Your task to perform on an android device: Go to Reddit.com Image 0: 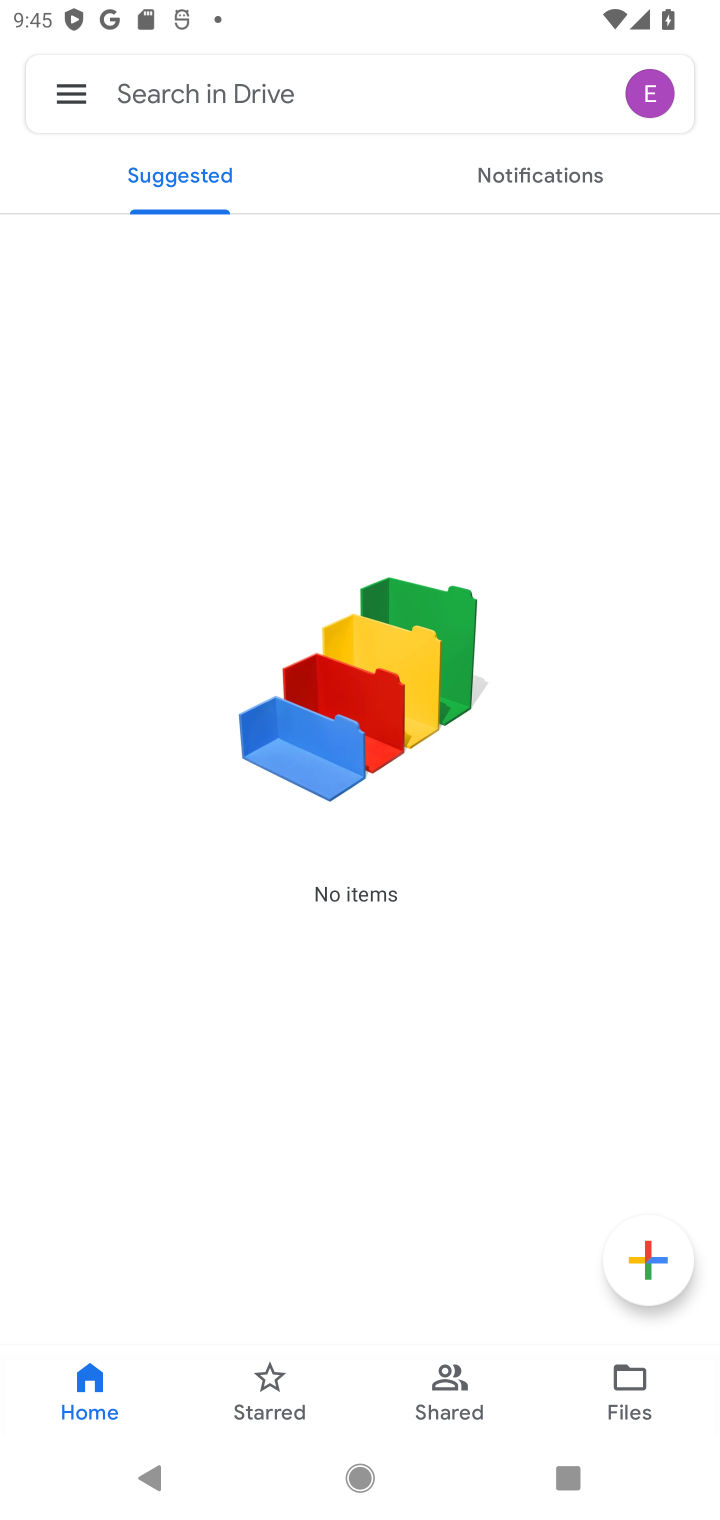
Step 0: press home button
Your task to perform on an android device: Go to Reddit.com Image 1: 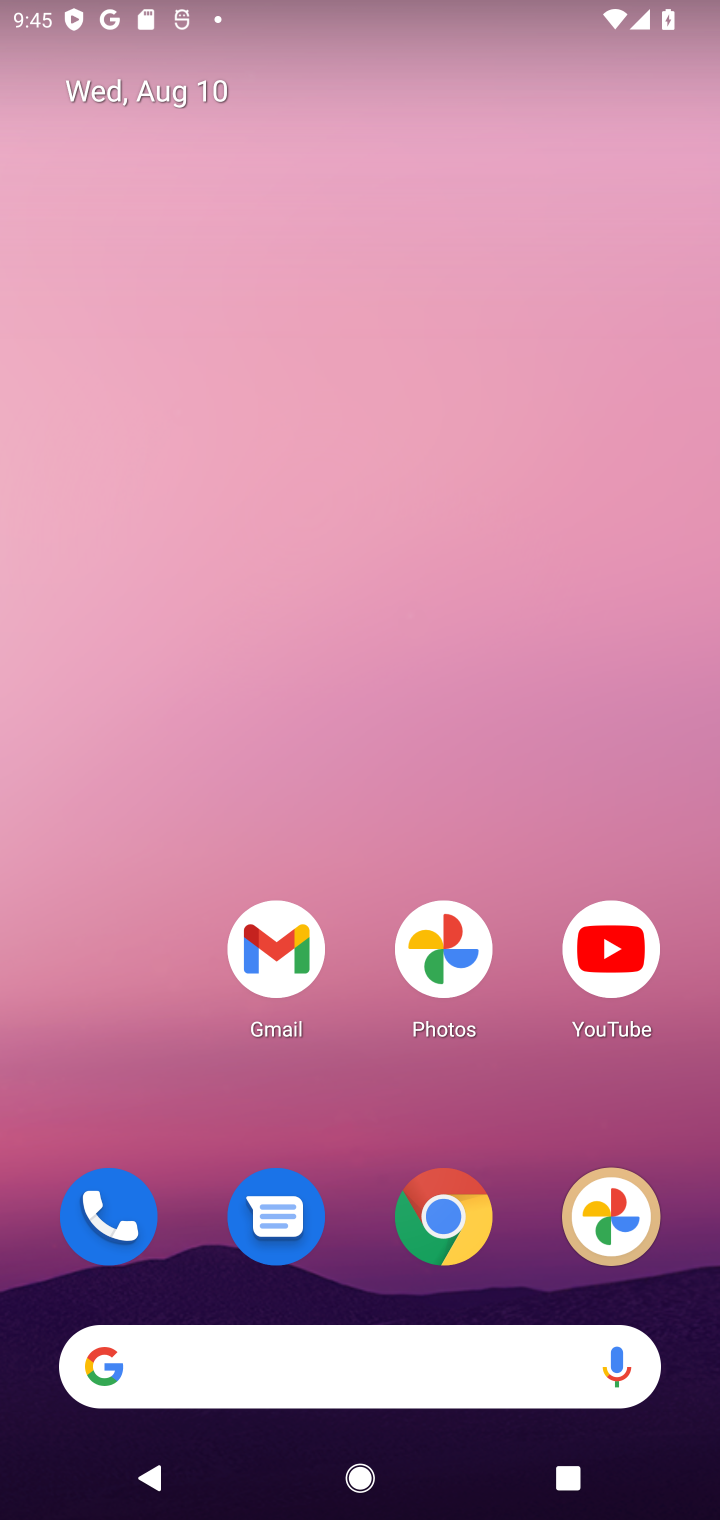
Step 1: click (286, 1375)
Your task to perform on an android device: Go to Reddit.com Image 2: 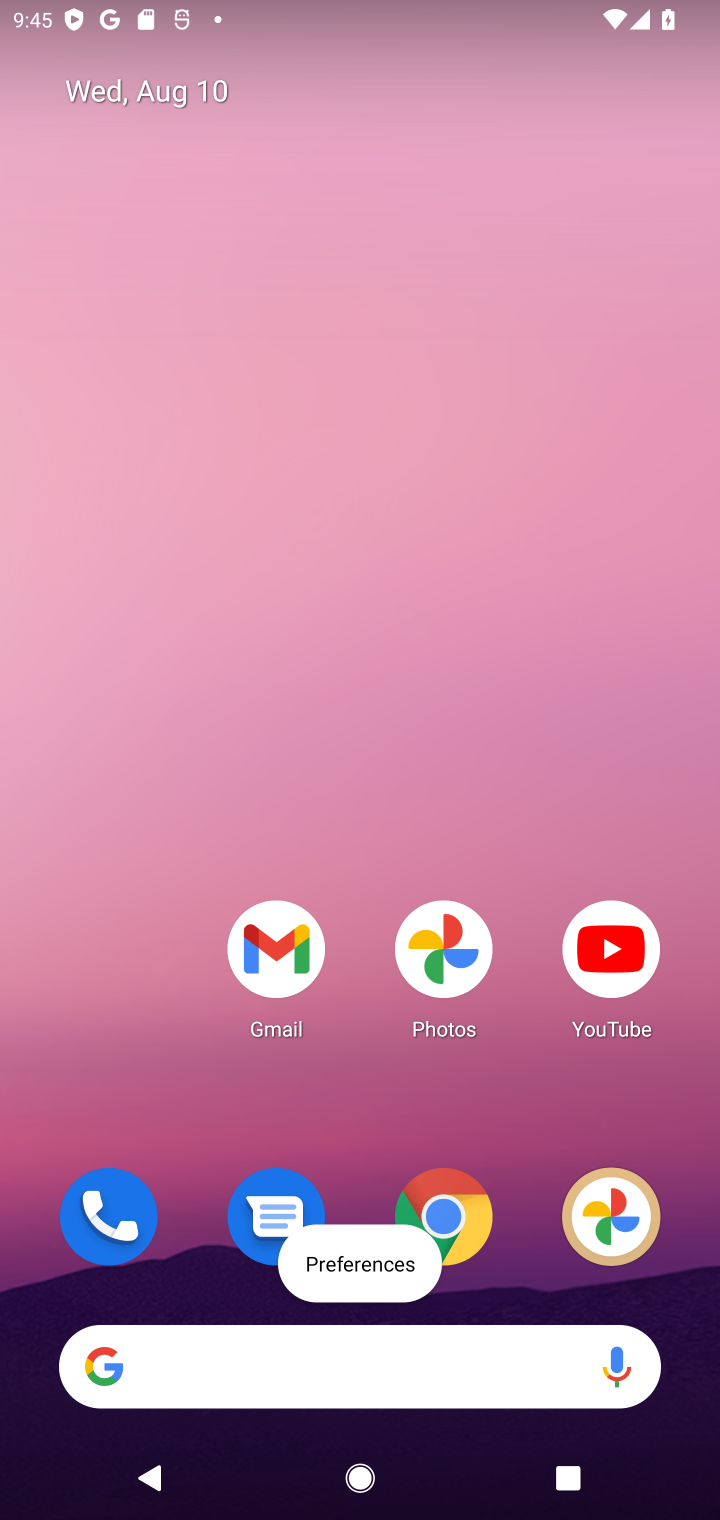
Step 2: click (340, 1376)
Your task to perform on an android device: Go to Reddit.com Image 3: 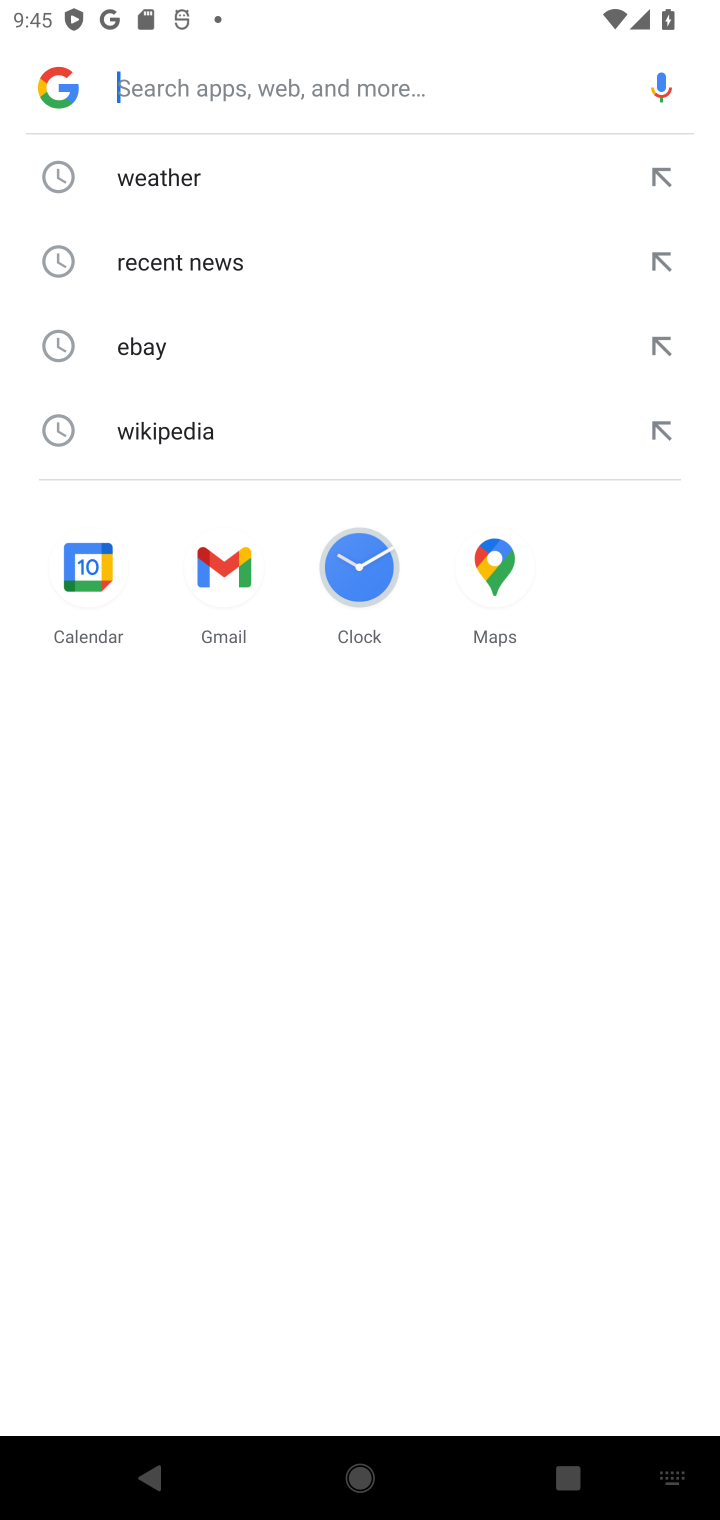
Step 3: click (258, 67)
Your task to perform on an android device: Go to Reddit.com Image 4: 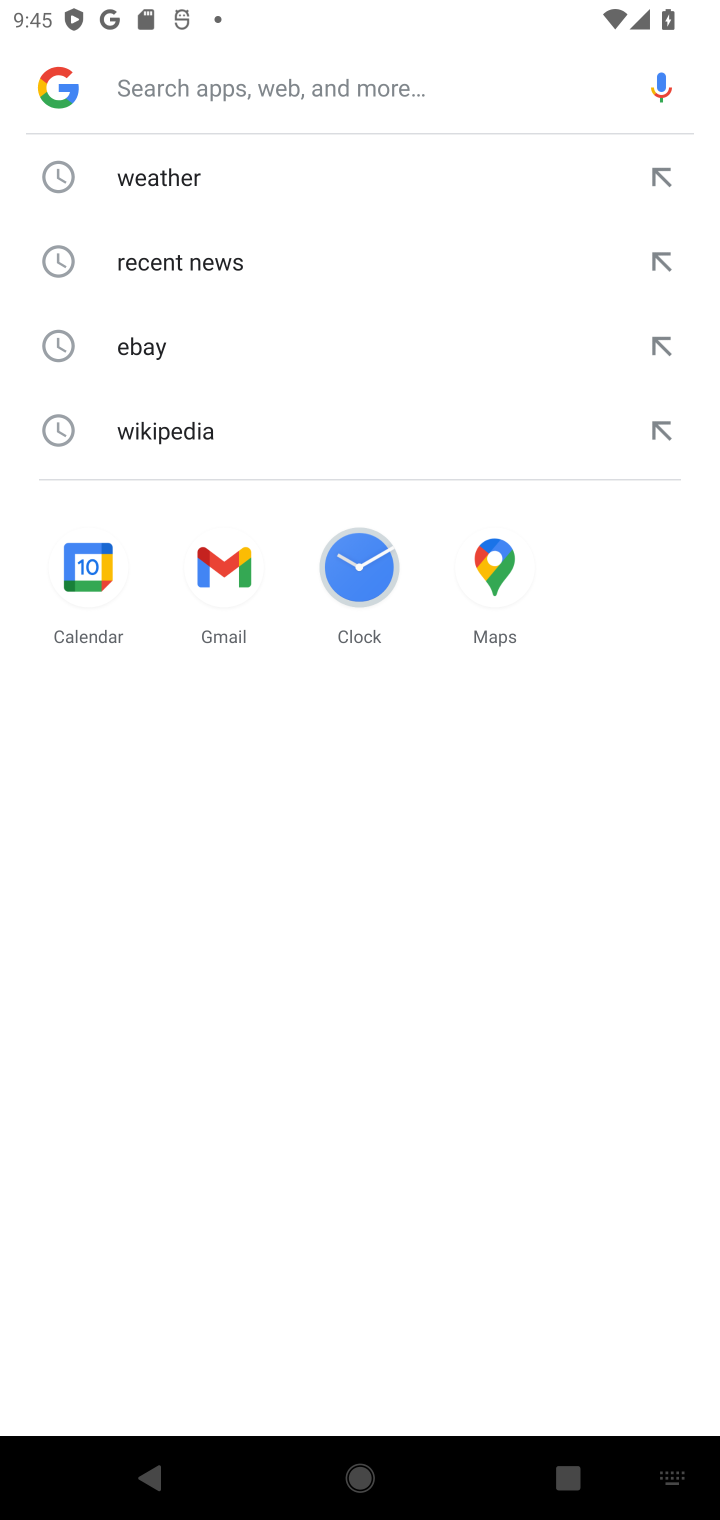
Step 4: type "Reddit.com"
Your task to perform on an android device: Go to Reddit.com Image 5: 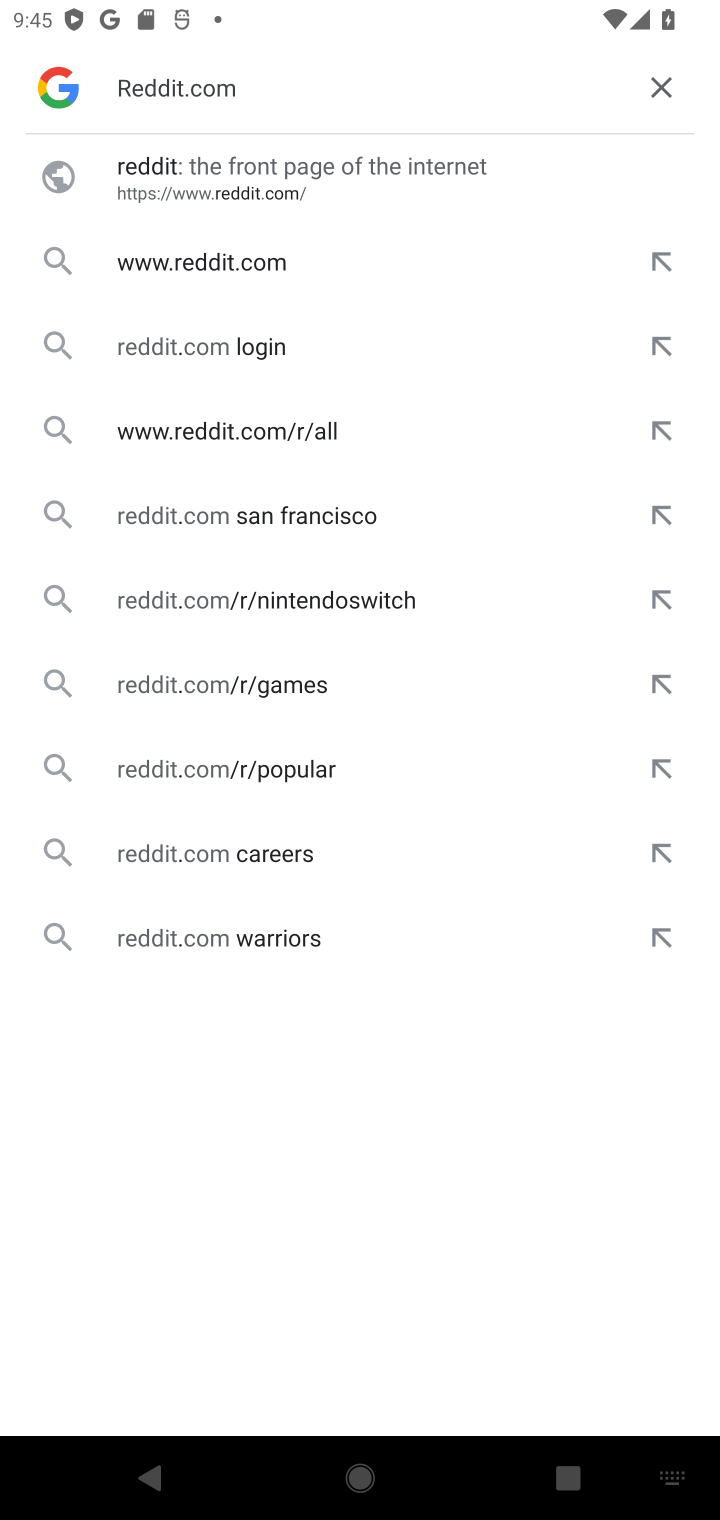
Step 5: click (208, 177)
Your task to perform on an android device: Go to Reddit.com Image 6: 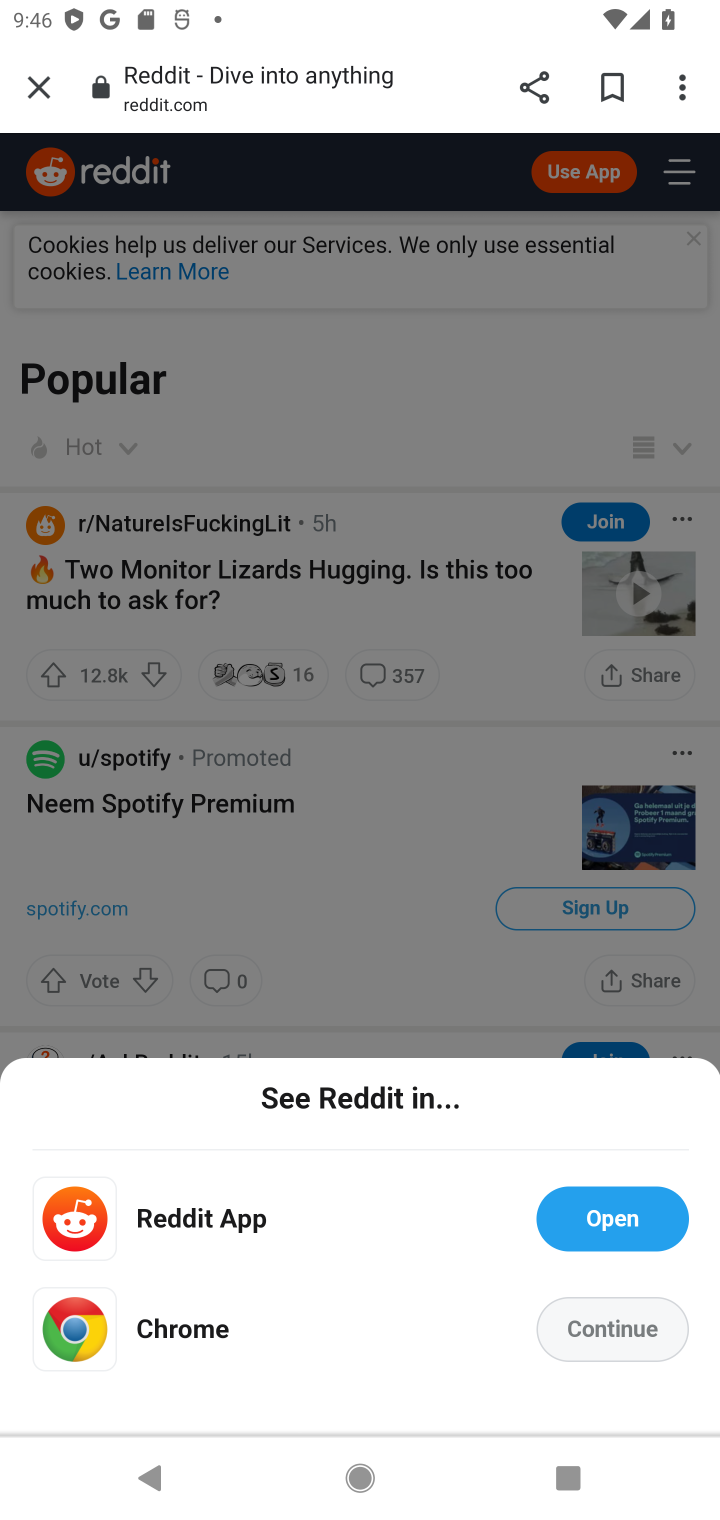
Step 6: task complete